Your task to perform on an android device: Search for vegetarian restaurants on Maps Image 0: 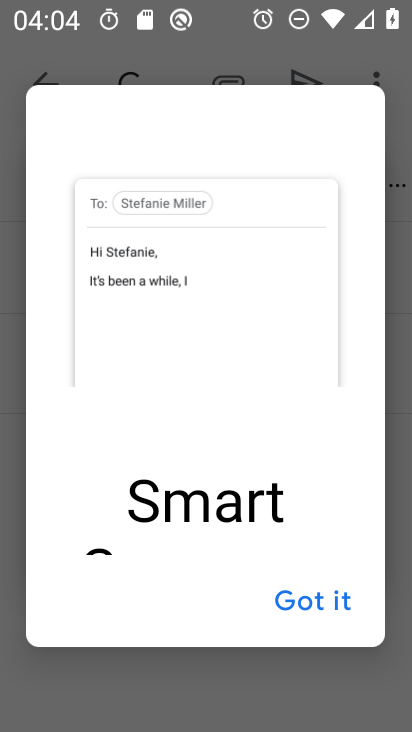
Step 0: press home button
Your task to perform on an android device: Search for vegetarian restaurants on Maps Image 1: 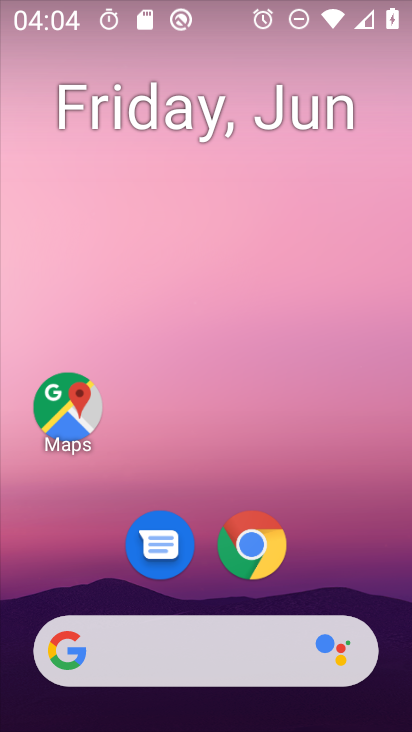
Step 1: click (74, 413)
Your task to perform on an android device: Search for vegetarian restaurants on Maps Image 2: 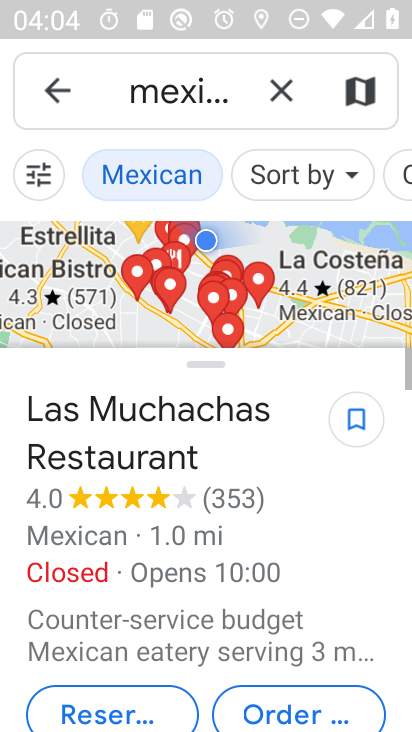
Step 2: click (280, 95)
Your task to perform on an android device: Search for vegetarian restaurants on Maps Image 3: 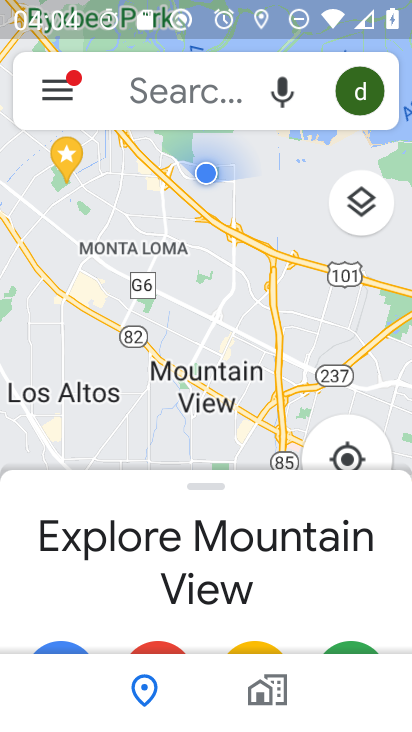
Step 3: click (163, 95)
Your task to perform on an android device: Search for vegetarian restaurants on Maps Image 4: 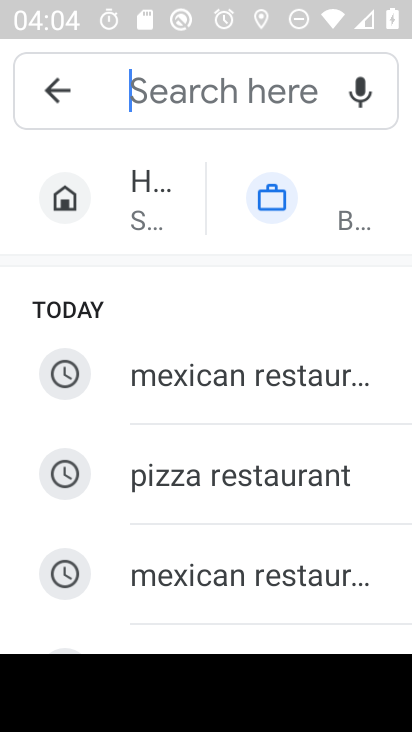
Step 4: type "vegetarian restaurants"
Your task to perform on an android device: Search for vegetarian restaurants on Maps Image 5: 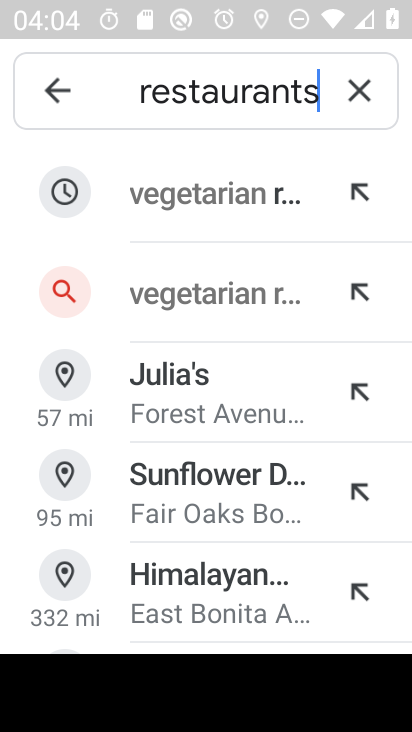
Step 5: click (211, 320)
Your task to perform on an android device: Search for vegetarian restaurants on Maps Image 6: 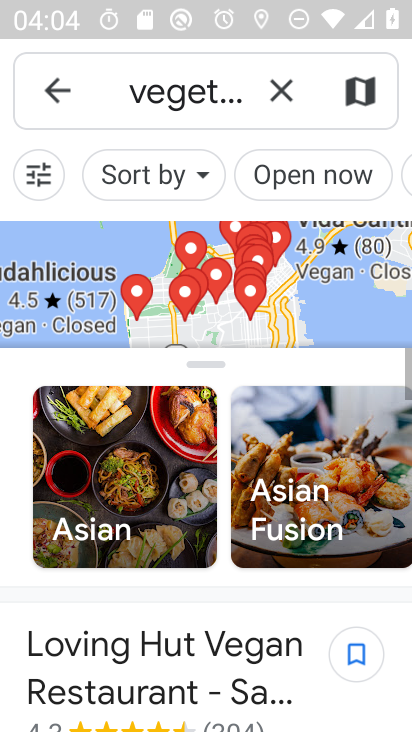
Step 6: task complete